Your task to perform on an android device: What's the weather? Image 0: 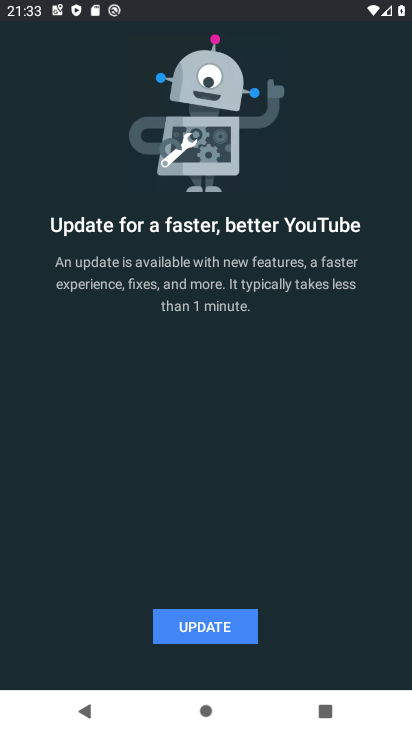
Step 0: press home button
Your task to perform on an android device: What's the weather? Image 1: 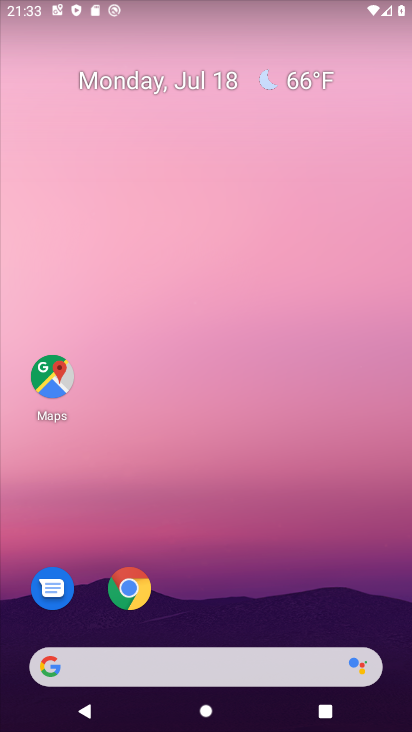
Step 1: click (168, 667)
Your task to perform on an android device: What's the weather? Image 2: 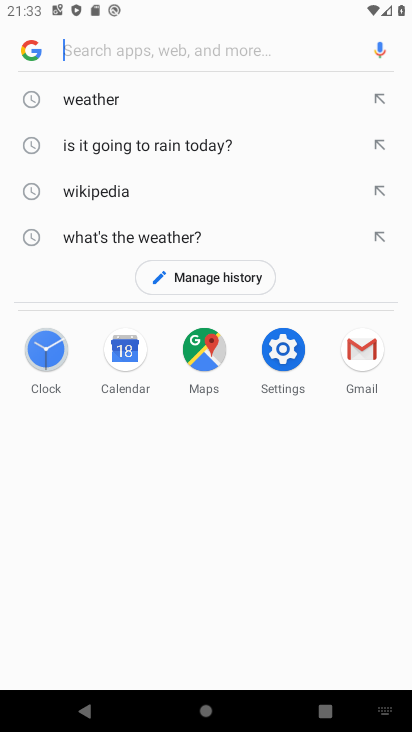
Step 2: click (112, 99)
Your task to perform on an android device: What's the weather? Image 3: 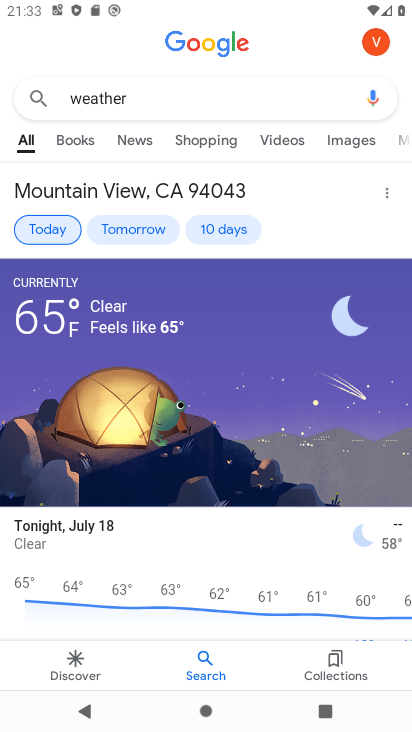
Step 3: task complete